Your task to perform on an android device: add a label to a message in the gmail app Image 0: 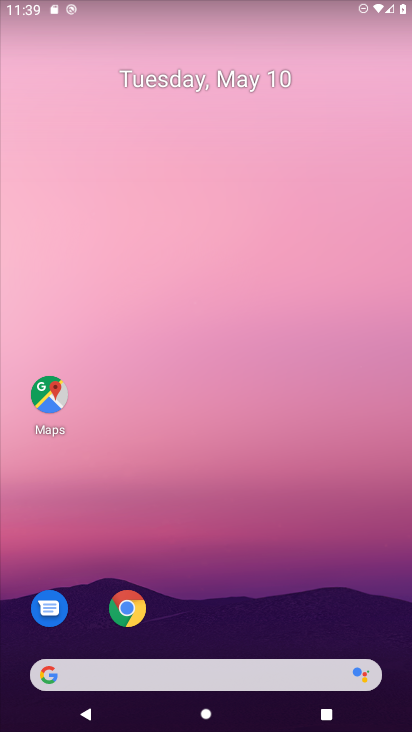
Step 0: drag from (216, 475) to (226, 36)
Your task to perform on an android device: add a label to a message in the gmail app Image 1: 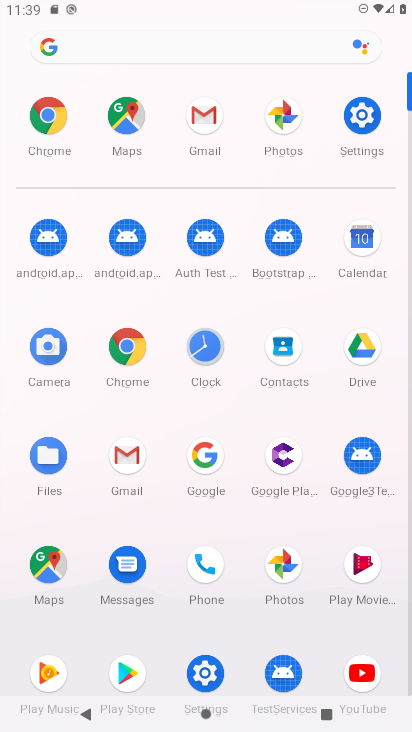
Step 1: click (205, 102)
Your task to perform on an android device: add a label to a message in the gmail app Image 2: 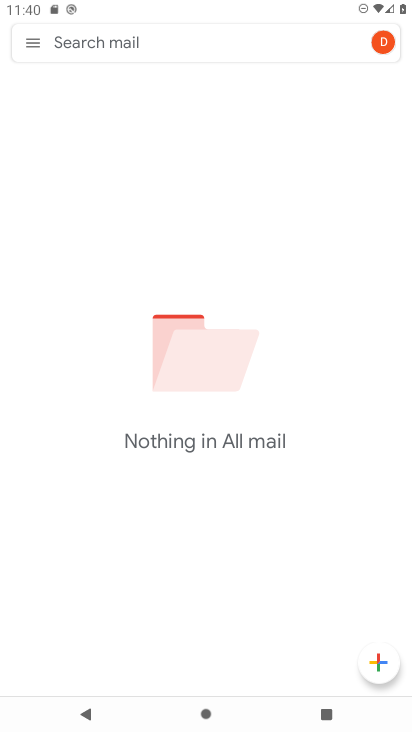
Step 2: task complete